Your task to perform on an android device: search for starred emails in the gmail app Image 0: 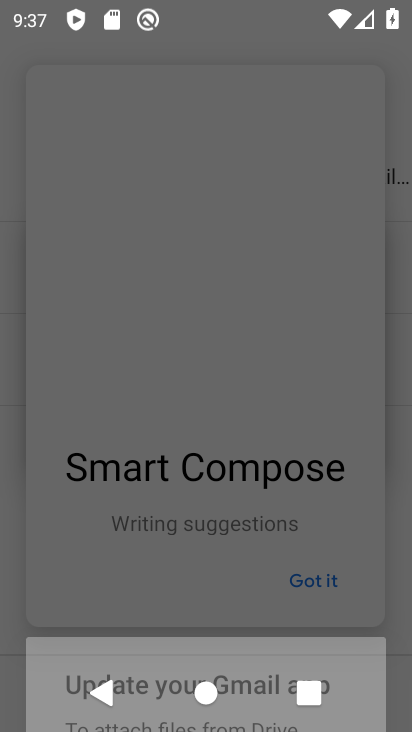
Step 0: press home button
Your task to perform on an android device: search for starred emails in the gmail app Image 1: 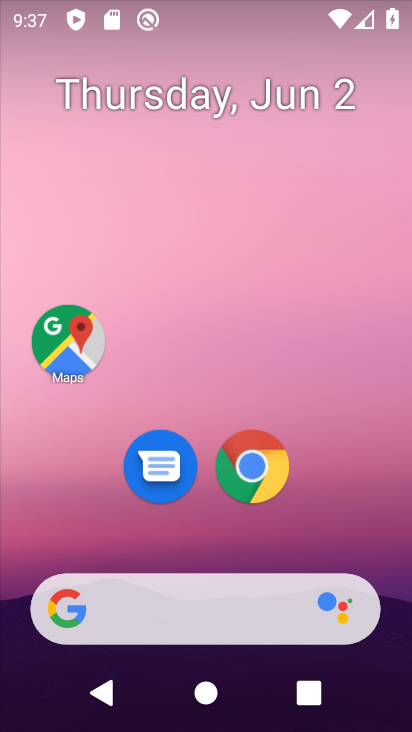
Step 1: drag from (284, 430) to (214, 52)
Your task to perform on an android device: search for starred emails in the gmail app Image 2: 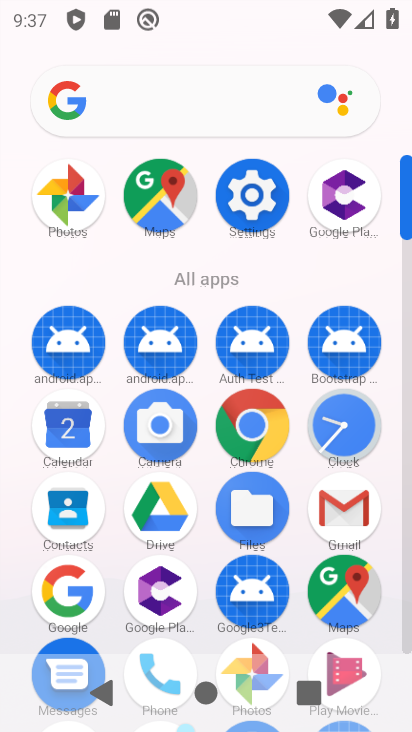
Step 2: click (345, 516)
Your task to perform on an android device: search for starred emails in the gmail app Image 3: 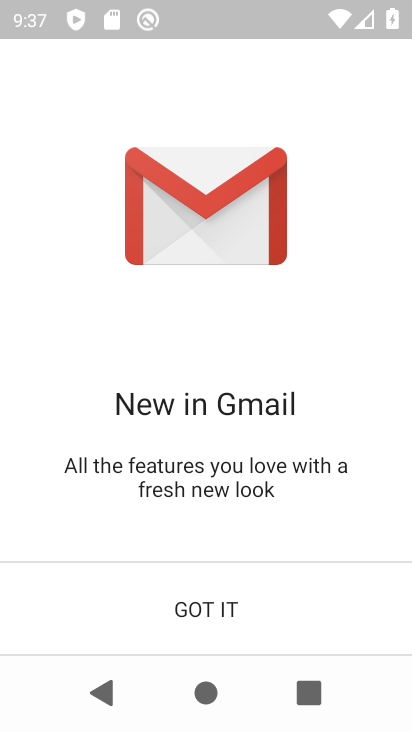
Step 3: click (277, 630)
Your task to perform on an android device: search for starred emails in the gmail app Image 4: 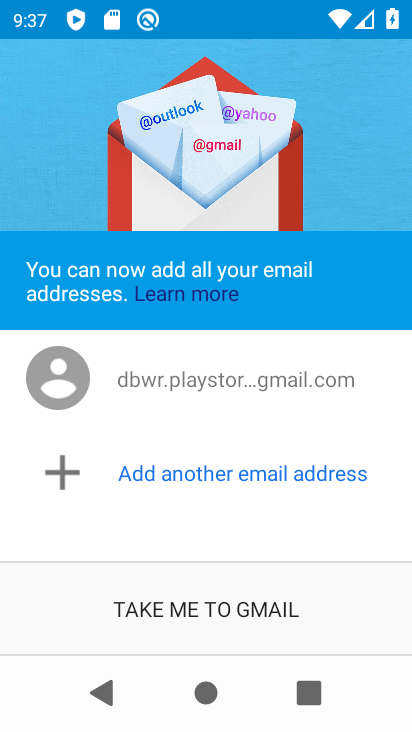
Step 4: click (266, 612)
Your task to perform on an android device: search for starred emails in the gmail app Image 5: 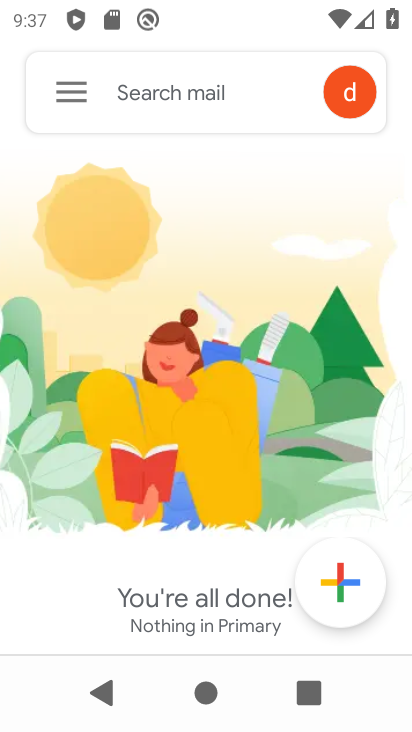
Step 5: click (50, 81)
Your task to perform on an android device: search for starred emails in the gmail app Image 6: 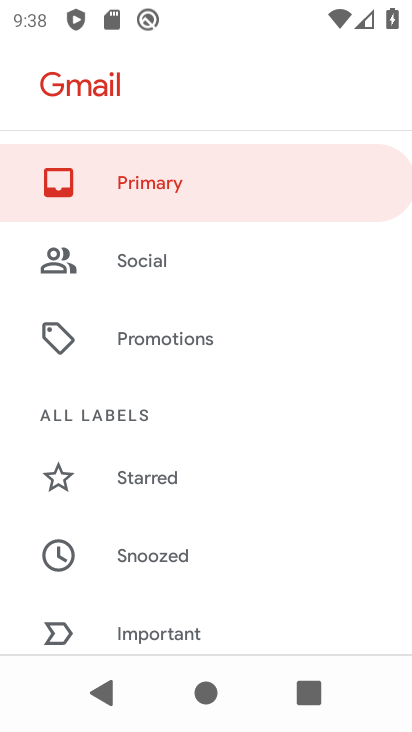
Step 6: drag from (186, 534) to (182, 373)
Your task to perform on an android device: search for starred emails in the gmail app Image 7: 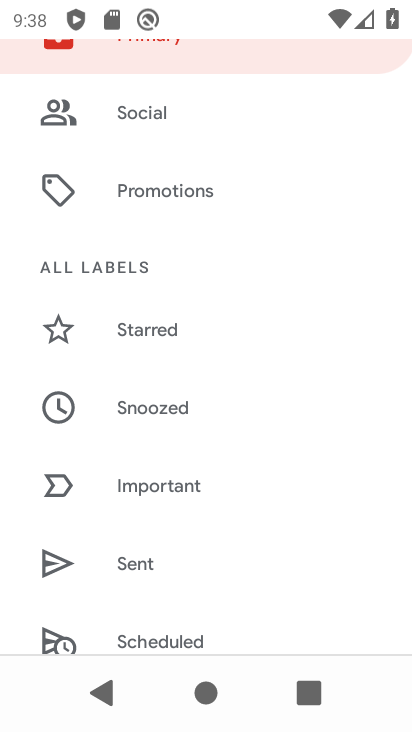
Step 7: click (126, 320)
Your task to perform on an android device: search for starred emails in the gmail app Image 8: 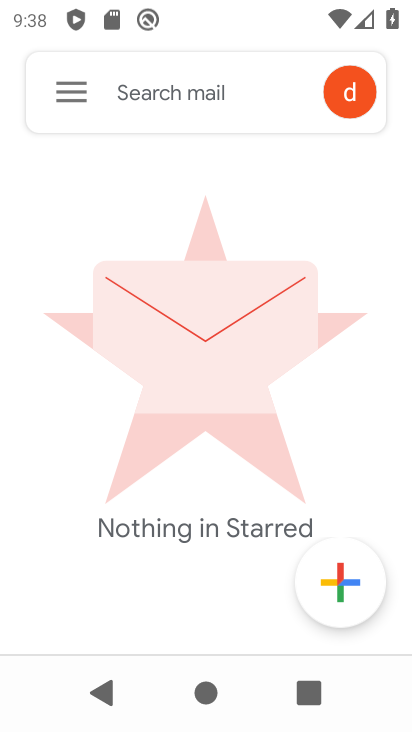
Step 8: task complete